Your task to perform on an android device: turn on notifications settings in the gmail app Image 0: 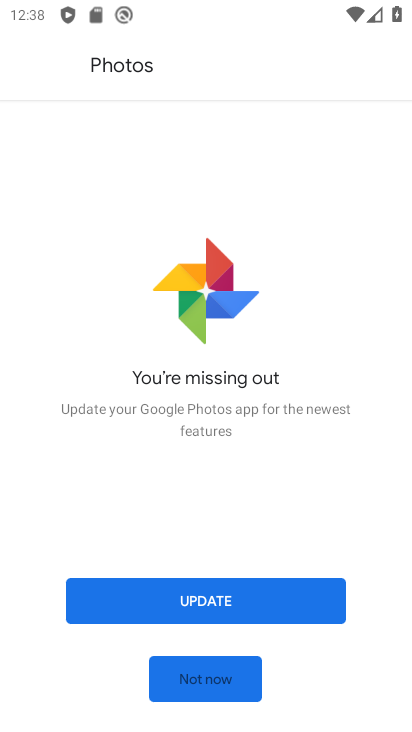
Step 0: press home button
Your task to perform on an android device: turn on notifications settings in the gmail app Image 1: 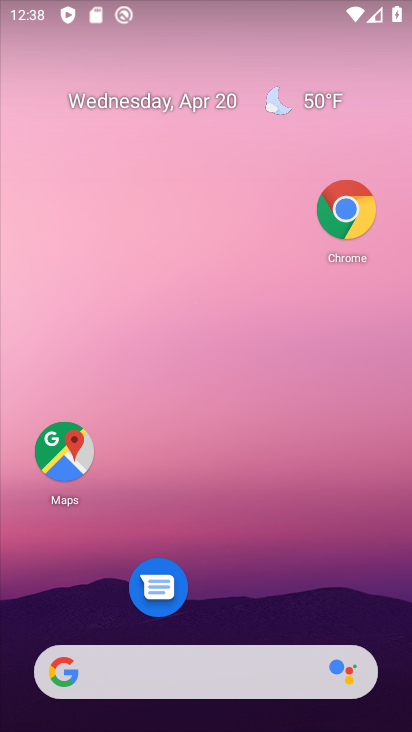
Step 1: drag from (200, 563) to (242, 26)
Your task to perform on an android device: turn on notifications settings in the gmail app Image 2: 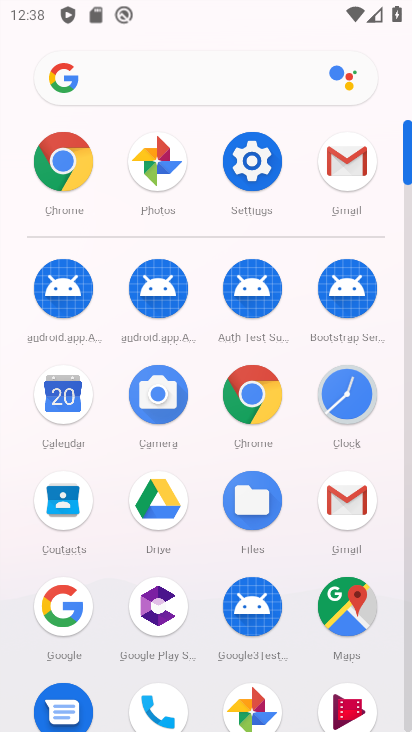
Step 2: click (332, 496)
Your task to perform on an android device: turn on notifications settings in the gmail app Image 3: 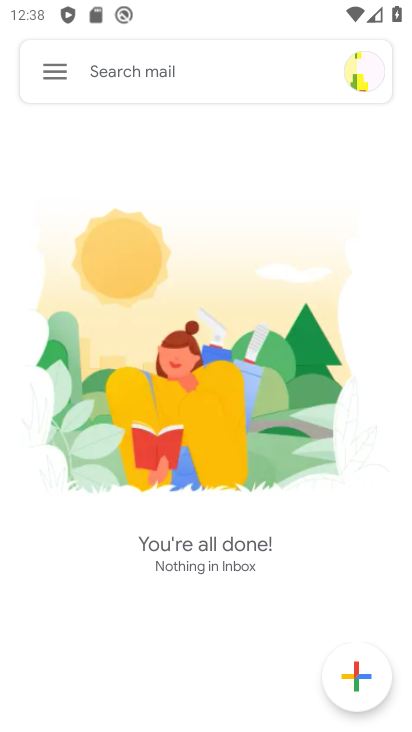
Step 3: click (51, 66)
Your task to perform on an android device: turn on notifications settings in the gmail app Image 4: 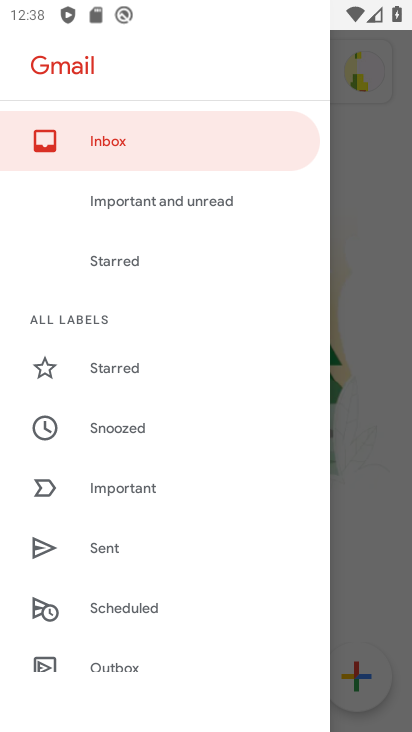
Step 4: drag from (108, 575) to (194, 228)
Your task to perform on an android device: turn on notifications settings in the gmail app Image 5: 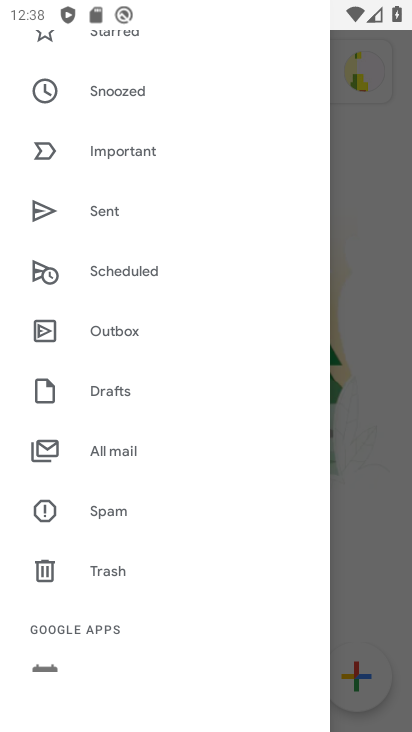
Step 5: drag from (125, 610) to (252, 3)
Your task to perform on an android device: turn on notifications settings in the gmail app Image 6: 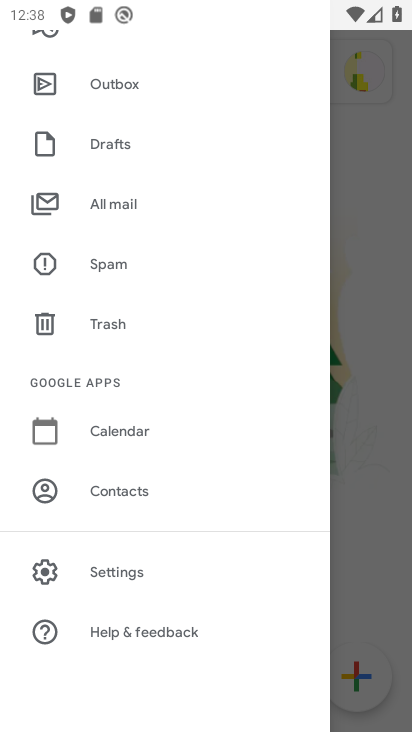
Step 6: click (128, 581)
Your task to perform on an android device: turn on notifications settings in the gmail app Image 7: 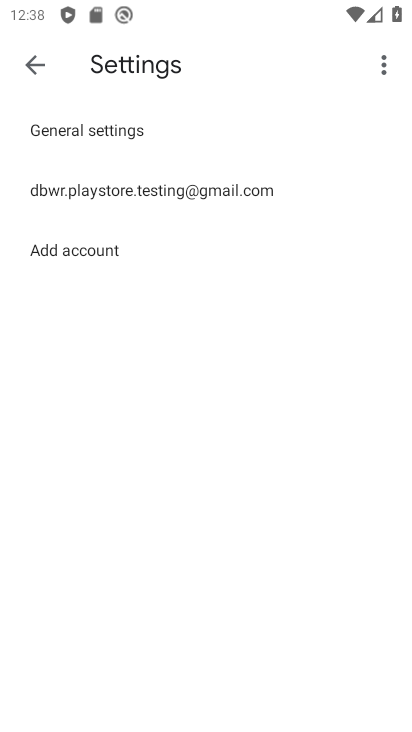
Step 7: click (114, 122)
Your task to perform on an android device: turn on notifications settings in the gmail app Image 8: 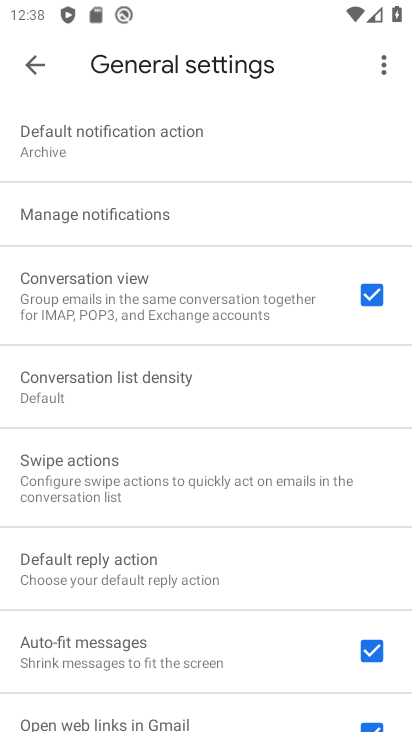
Step 8: click (98, 223)
Your task to perform on an android device: turn on notifications settings in the gmail app Image 9: 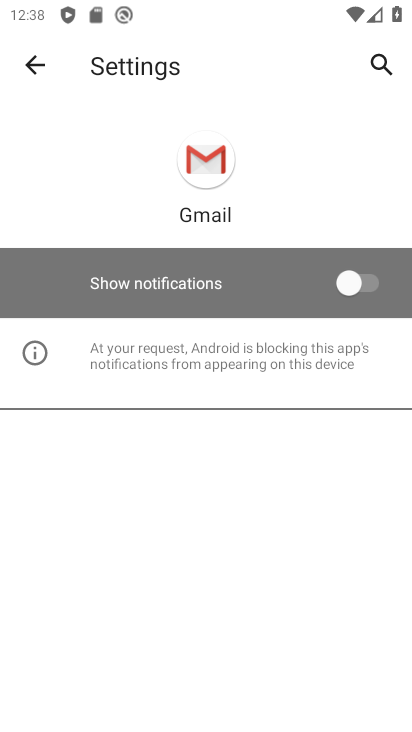
Step 9: click (348, 288)
Your task to perform on an android device: turn on notifications settings in the gmail app Image 10: 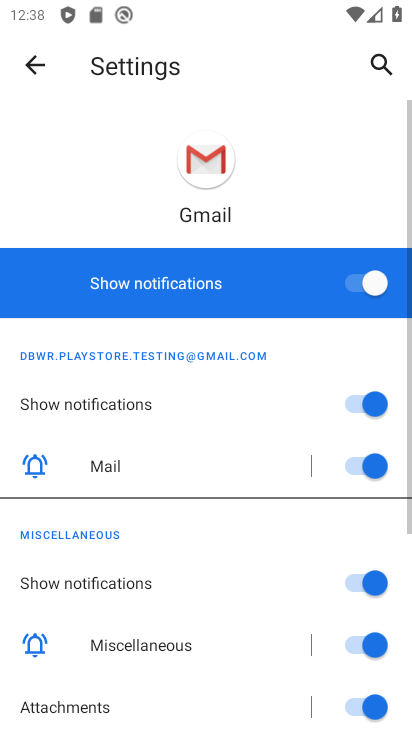
Step 10: task complete